Your task to perform on an android device: Go to privacy settings Image 0: 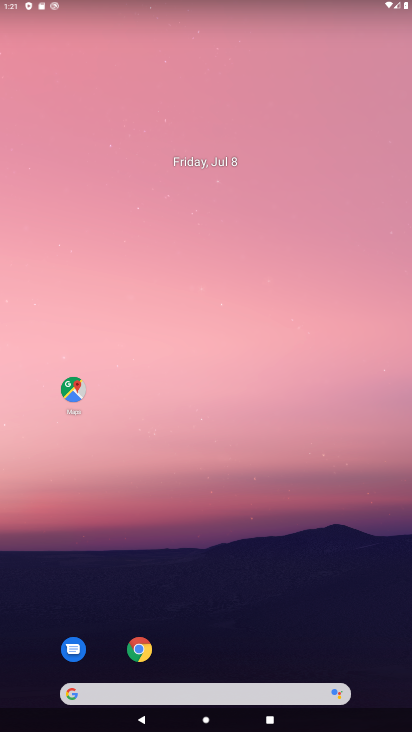
Step 0: click (141, 648)
Your task to perform on an android device: Go to privacy settings Image 1: 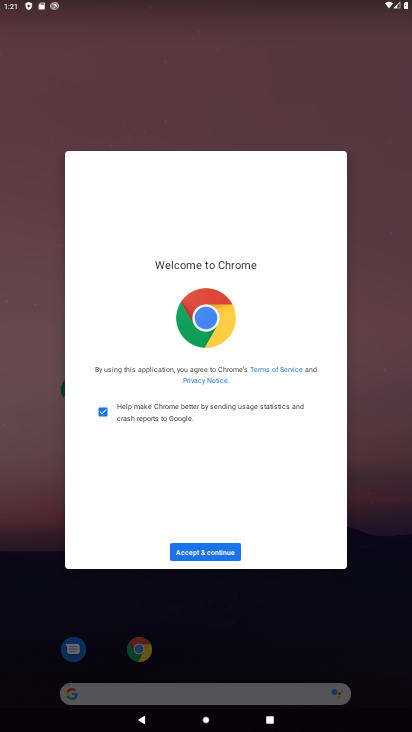
Step 1: click (206, 552)
Your task to perform on an android device: Go to privacy settings Image 2: 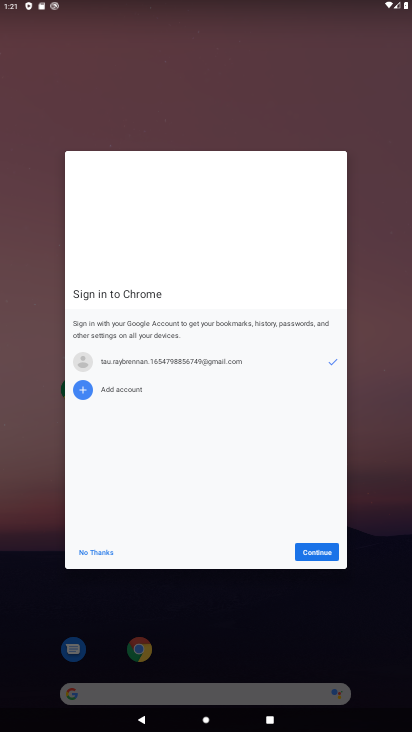
Step 2: click (317, 553)
Your task to perform on an android device: Go to privacy settings Image 3: 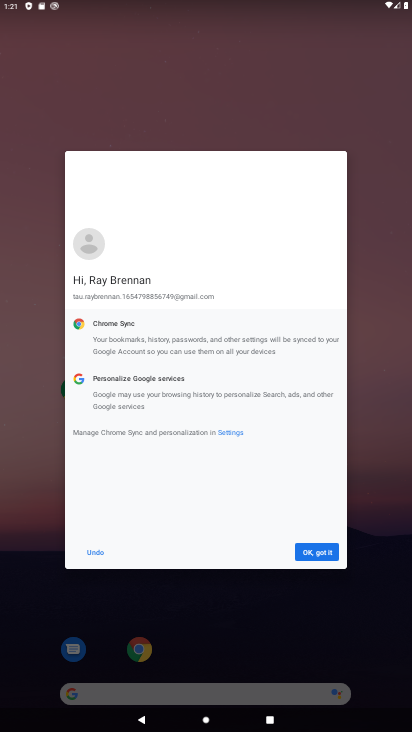
Step 3: click (316, 553)
Your task to perform on an android device: Go to privacy settings Image 4: 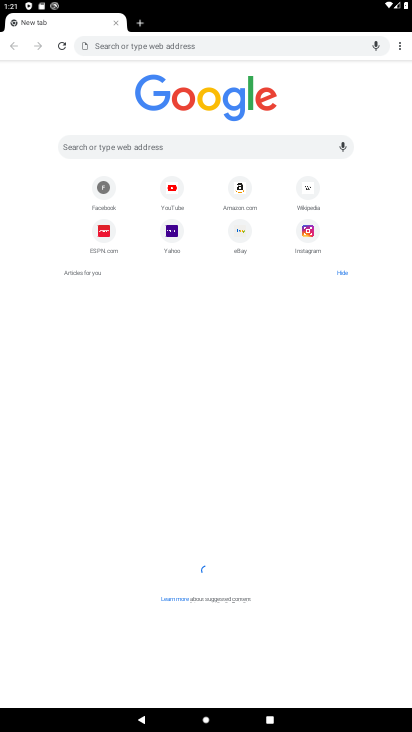
Step 4: click (393, 47)
Your task to perform on an android device: Go to privacy settings Image 5: 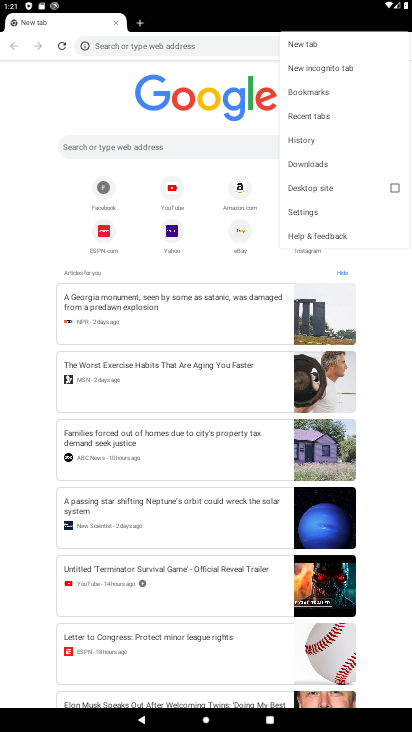
Step 5: click (302, 210)
Your task to perform on an android device: Go to privacy settings Image 6: 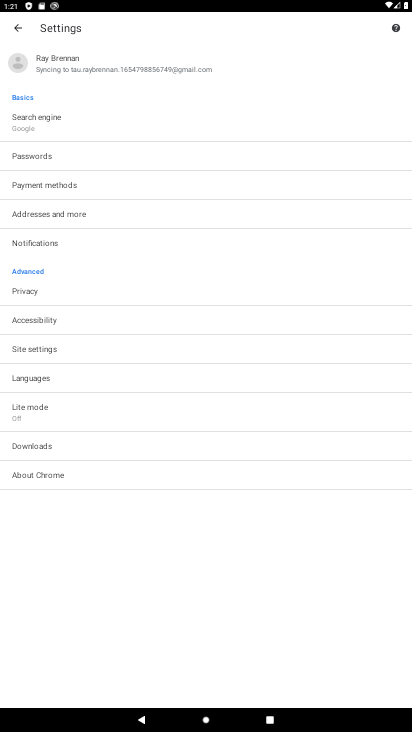
Step 6: click (37, 298)
Your task to perform on an android device: Go to privacy settings Image 7: 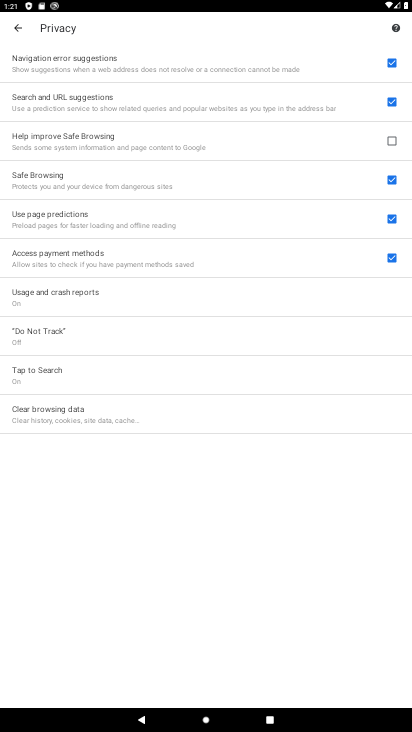
Step 7: task complete